Your task to perform on an android device: Go to sound settings Image 0: 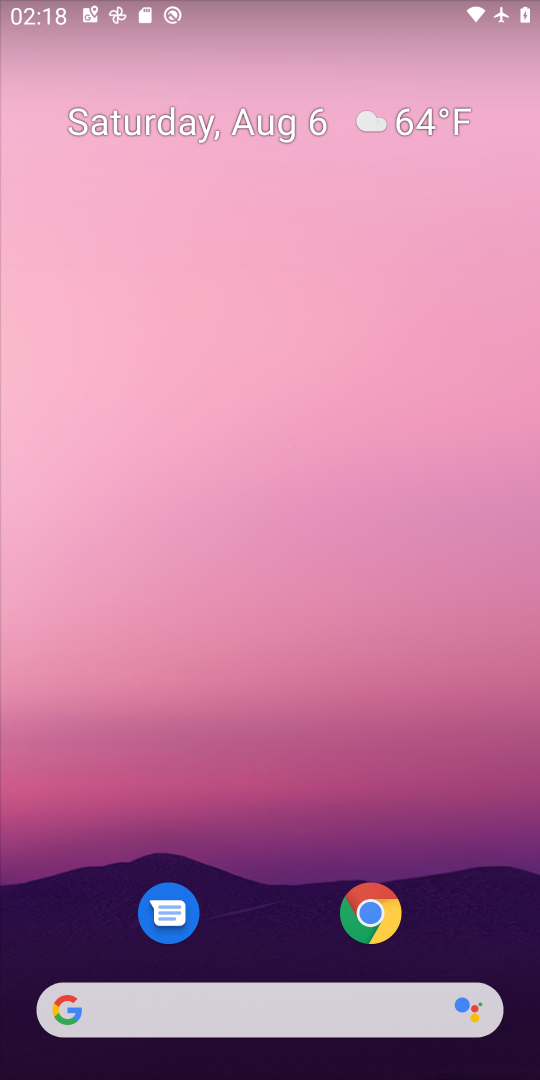
Step 0: press home button
Your task to perform on an android device: Go to sound settings Image 1: 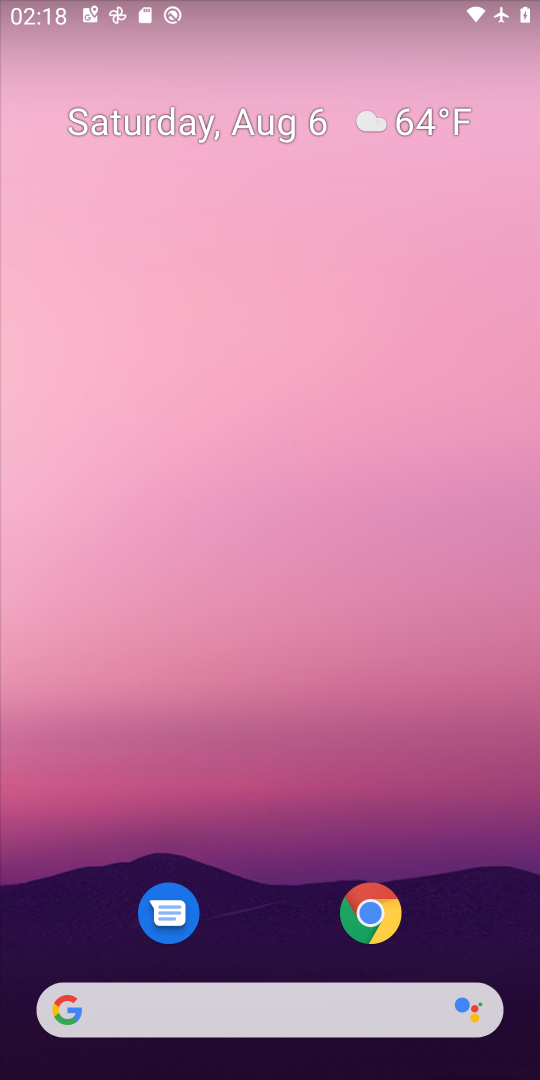
Step 1: drag from (438, 841) to (453, 235)
Your task to perform on an android device: Go to sound settings Image 2: 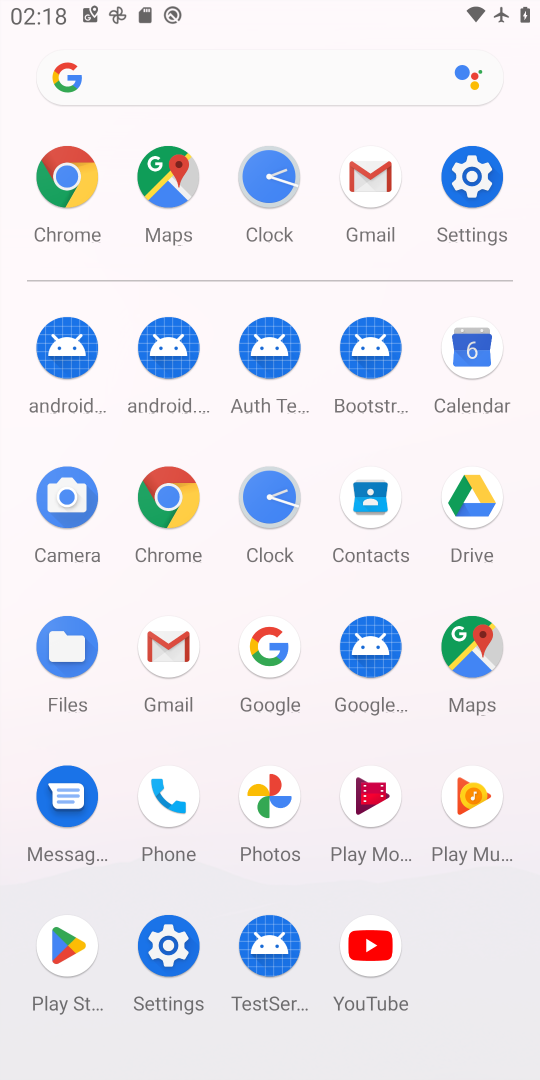
Step 2: click (477, 189)
Your task to perform on an android device: Go to sound settings Image 3: 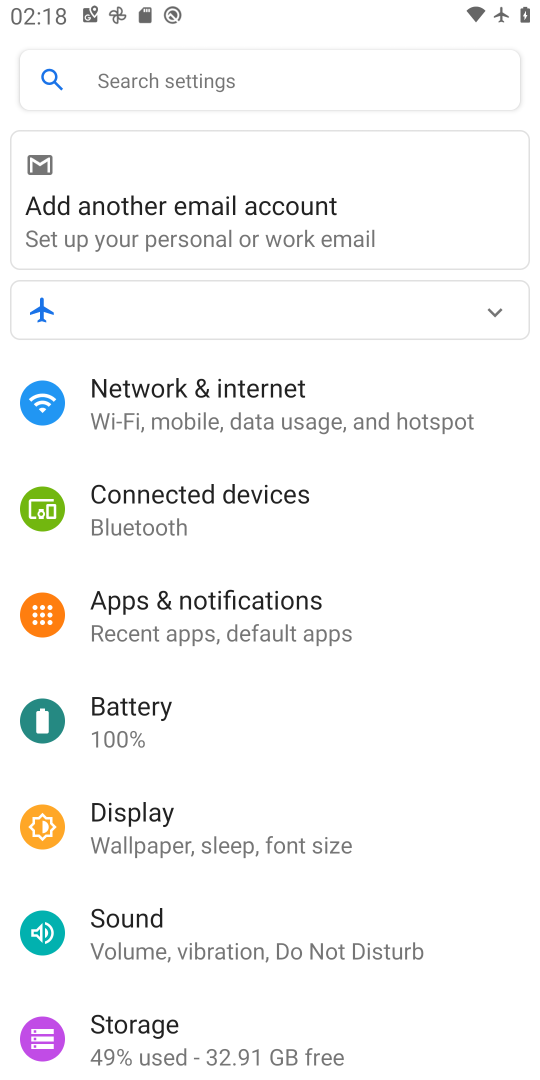
Step 3: click (288, 923)
Your task to perform on an android device: Go to sound settings Image 4: 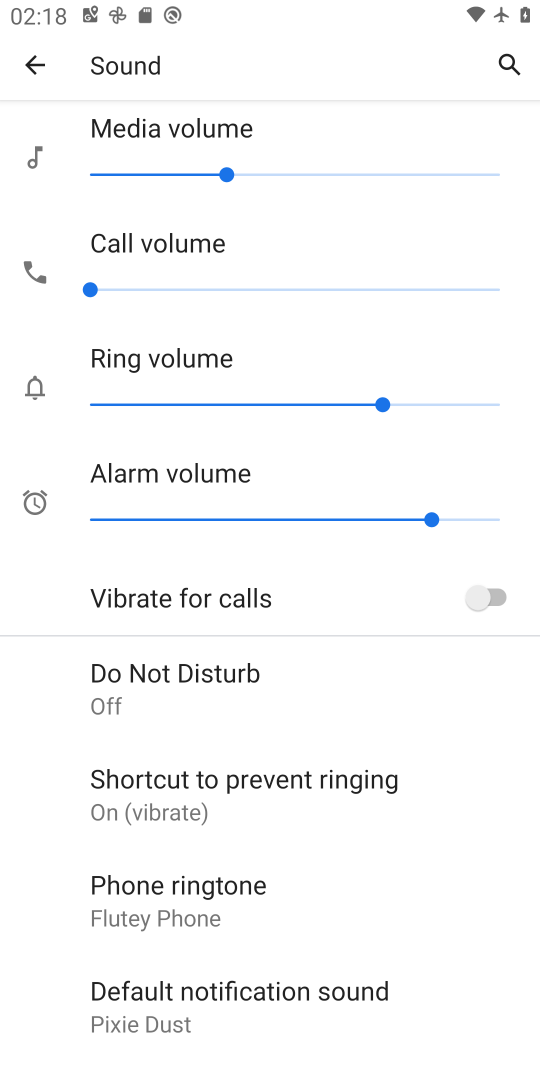
Step 4: task complete